Your task to perform on an android device: turn on showing notifications on the lock screen Image 0: 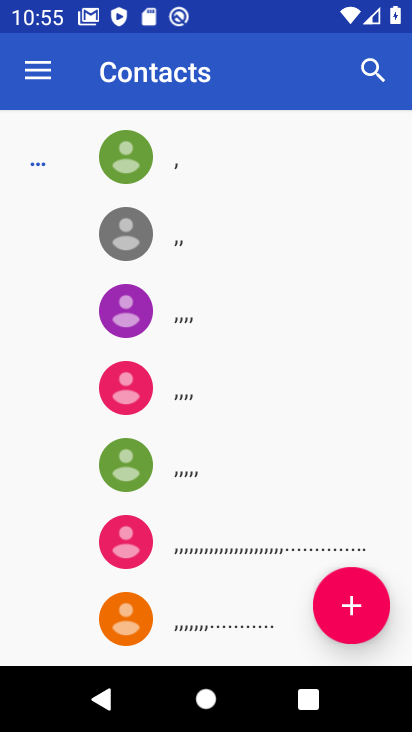
Step 0: press home button
Your task to perform on an android device: turn on showing notifications on the lock screen Image 1: 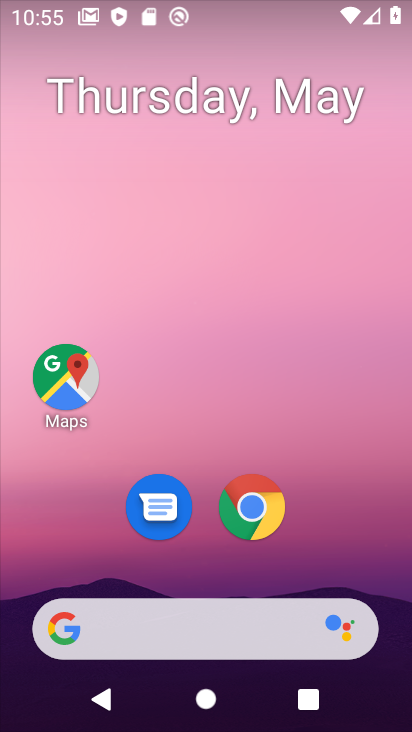
Step 1: drag from (200, 580) to (205, 123)
Your task to perform on an android device: turn on showing notifications on the lock screen Image 2: 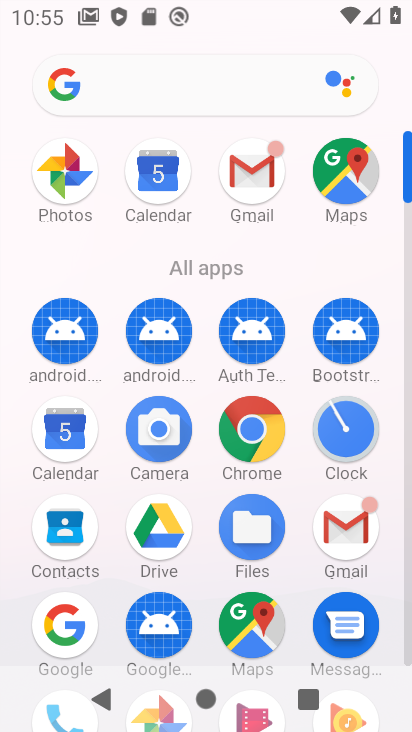
Step 2: drag from (114, 596) to (151, 114)
Your task to perform on an android device: turn on showing notifications on the lock screen Image 3: 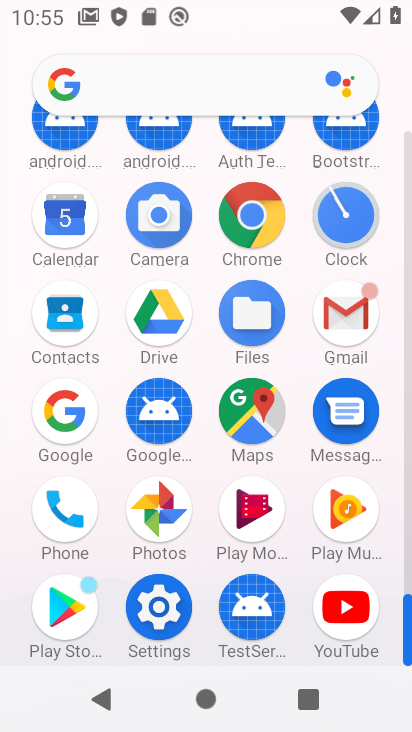
Step 3: click (167, 592)
Your task to perform on an android device: turn on showing notifications on the lock screen Image 4: 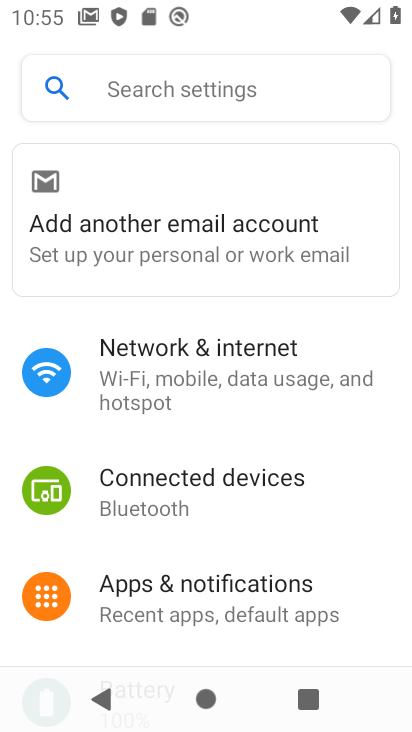
Step 4: drag from (199, 616) to (215, 426)
Your task to perform on an android device: turn on showing notifications on the lock screen Image 5: 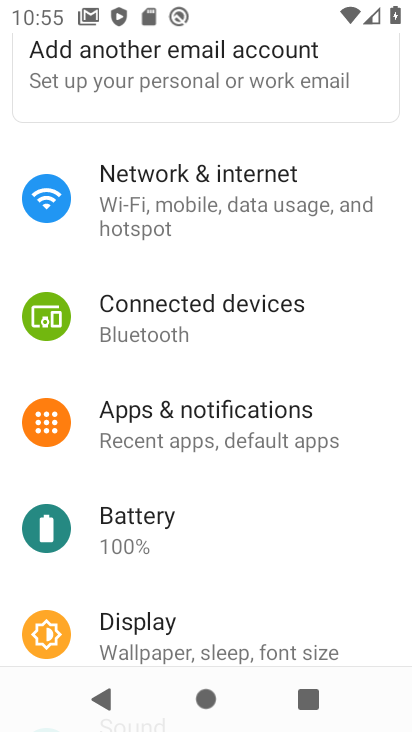
Step 5: click (215, 426)
Your task to perform on an android device: turn on showing notifications on the lock screen Image 6: 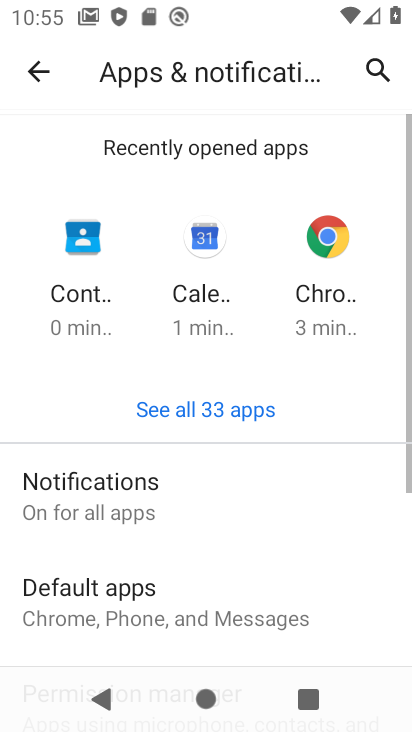
Step 6: drag from (223, 541) to (218, 313)
Your task to perform on an android device: turn on showing notifications on the lock screen Image 7: 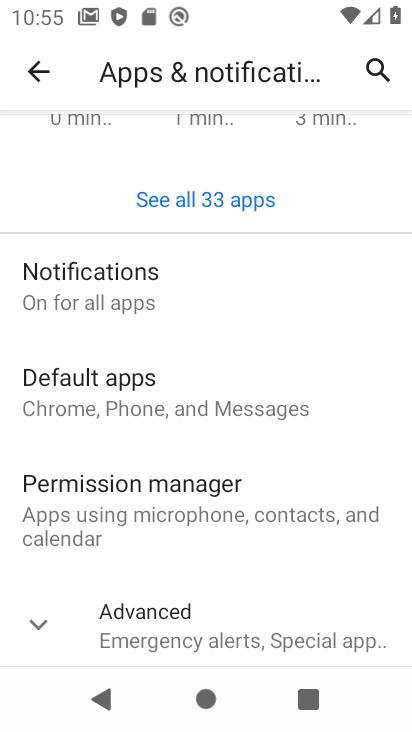
Step 7: drag from (211, 560) to (227, 417)
Your task to perform on an android device: turn on showing notifications on the lock screen Image 8: 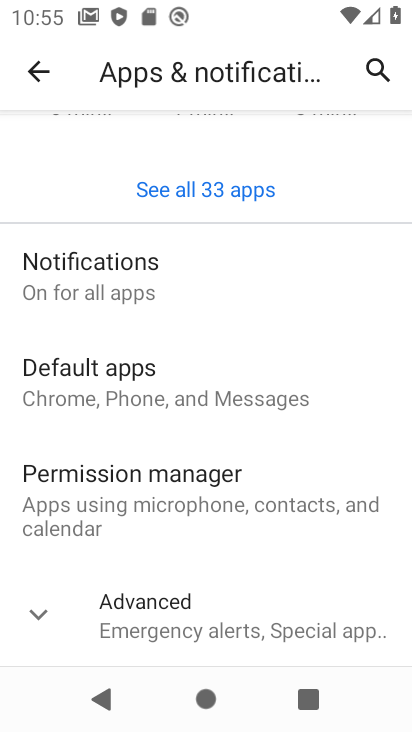
Step 8: click (227, 613)
Your task to perform on an android device: turn on showing notifications on the lock screen Image 9: 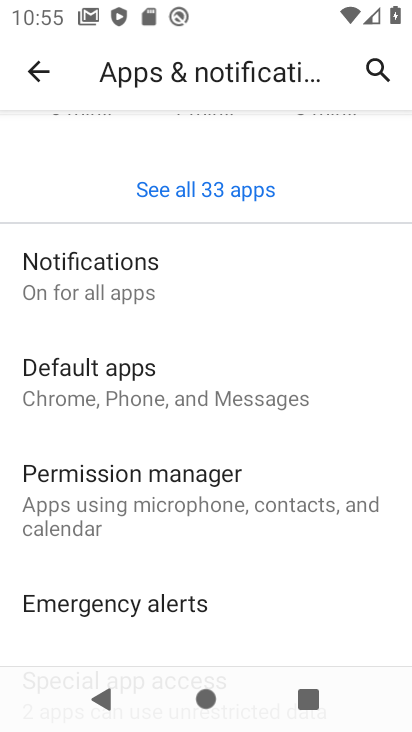
Step 9: drag from (227, 613) to (221, 250)
Your task to perform on an android device: turn on showing notifications on the lock screen Image 10: 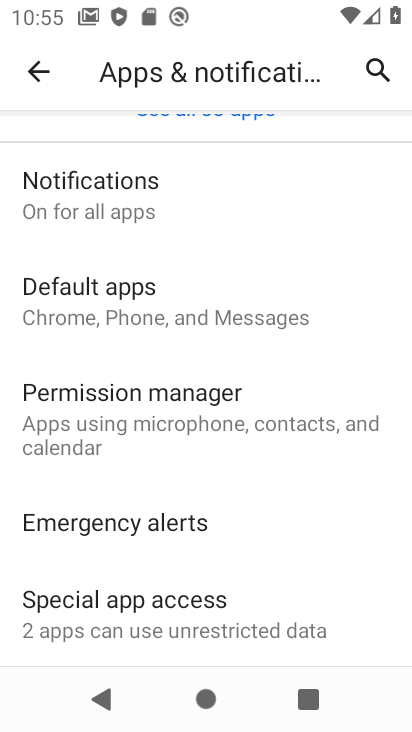
Step 10: drag from (185, 540) to (242, 342)
Your task to perform on an android device: turn on showing notifications on the lock screen Image 11: 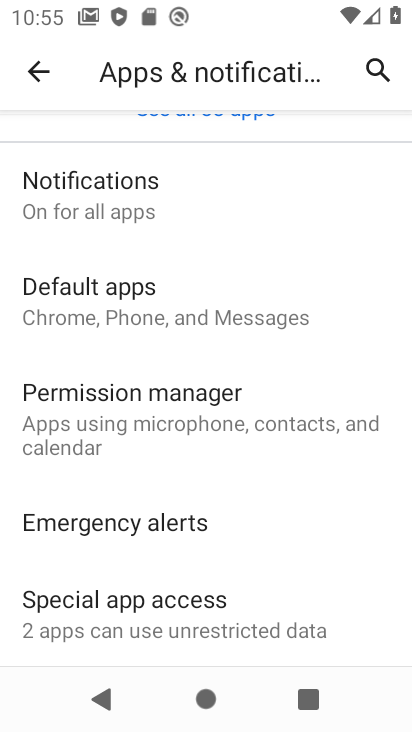
Step 11: click (178, 198)
Your task to perform on an android device: turn on showing notifications on the lock screen Image 12: 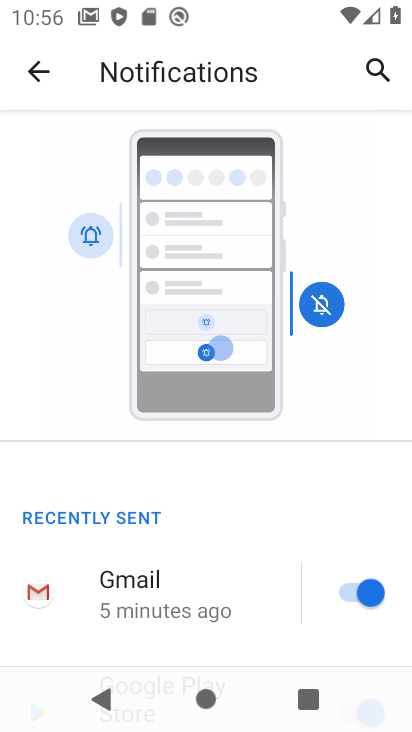
Step 12: drag from (176, 557) to (209, 20)
Your task to perform on an android device: turn on showing notifications on the lock screen Image 13: 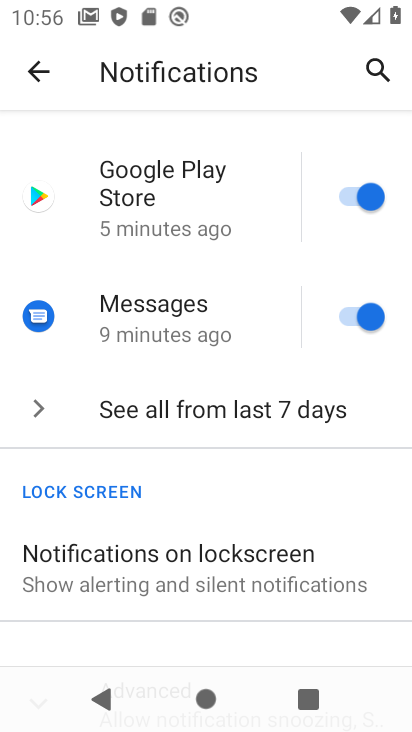
Step 13: click (153, 554)
Your task to perform on an android device: turn on showing notifications on the lock screen Image 14: 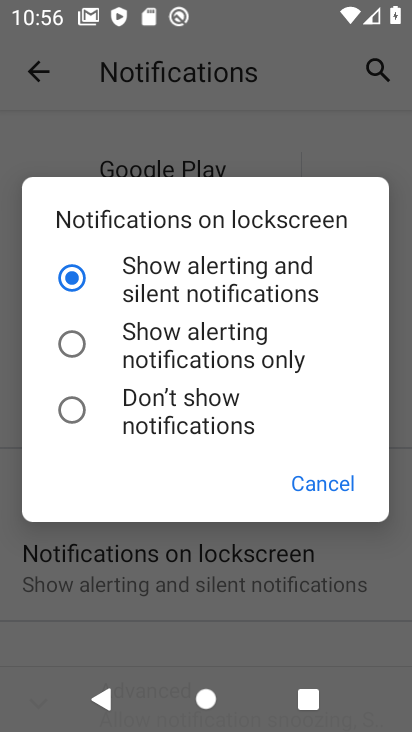
Step 14: task complete